Your task to perform on an android device: turn pop-ups off in chrome Image 0: 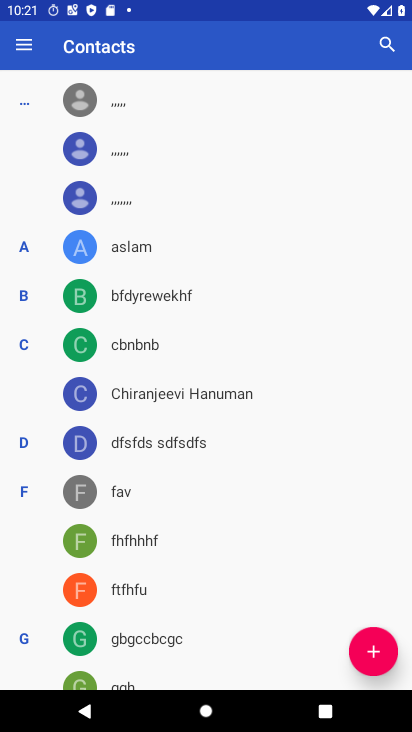
Step 0: press home button
Your task to perform on an android device: turn pop-ups off in chrome Image 1: 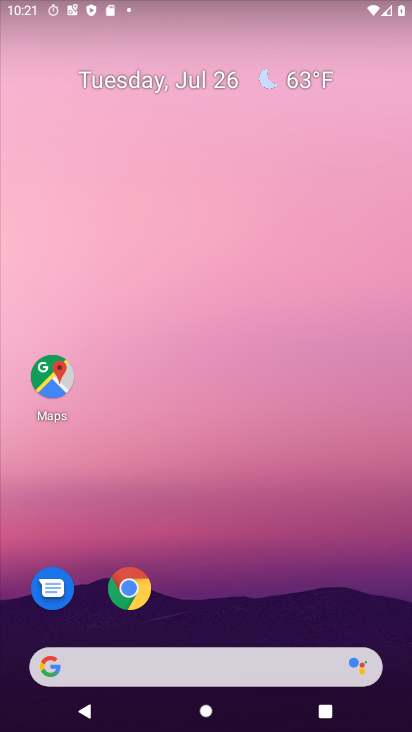
Step 1: click (136, 577)
Your task to perform on an android device: turn pop-ups off in chrome Image 2: 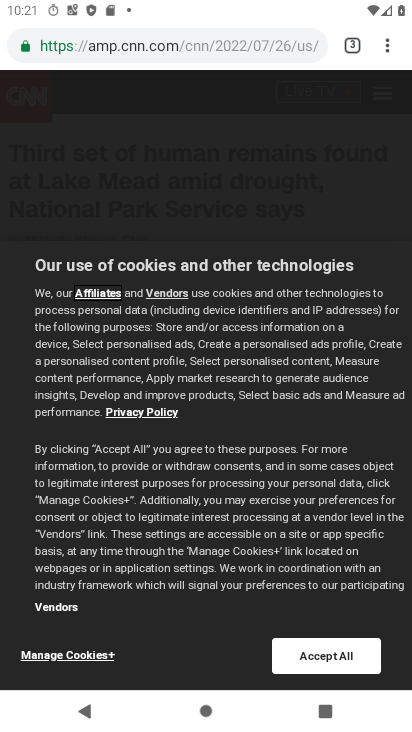
Step 2: click (391, 52)
Your task to perform on an android device: turn pop-ups off in chrome Image 3: 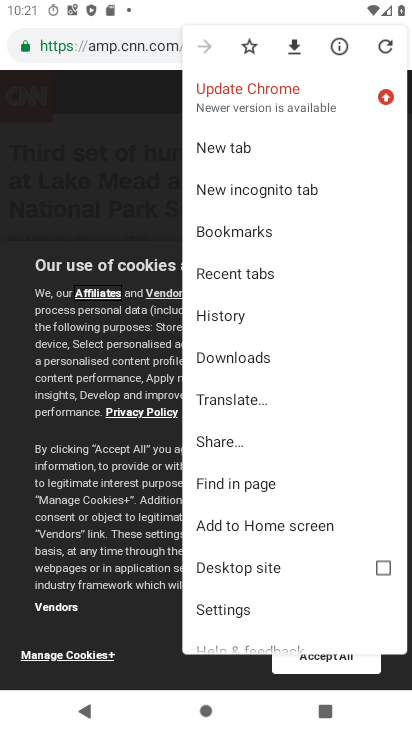
Step 3: click (236, 609)
Your task to perform on an android device: turn pop-ups off in chrome Image 4: 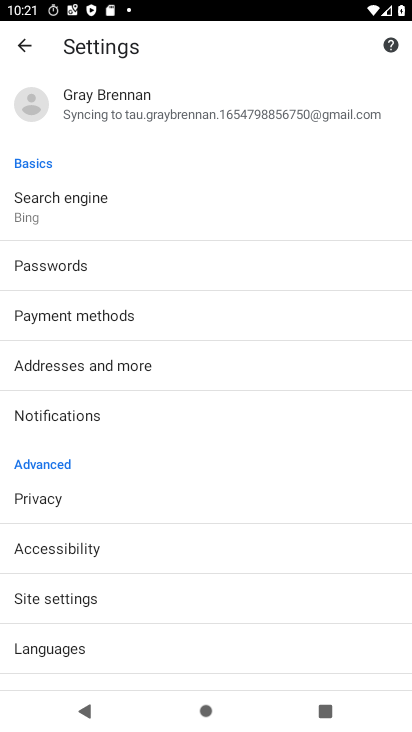
Step 4: click (42, 589)
Your task to perform on an android device: turn pop-ups off in chrome Image 5: 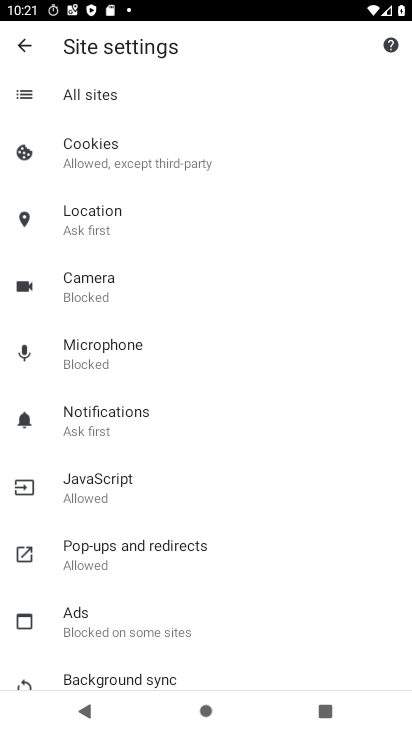
Step 5: click (142, 552)
Your task to perform on an android device: turn pop-ups off in chrome Image 6: 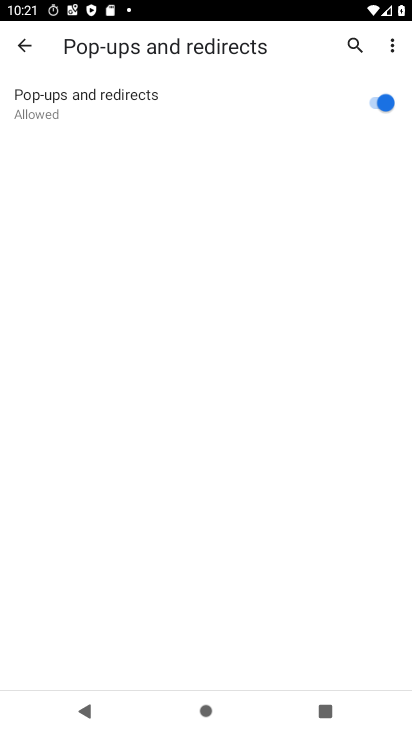
Step 6: task complete